Your task to perform on an android device: Show me the alarms in the clock app Image 0: 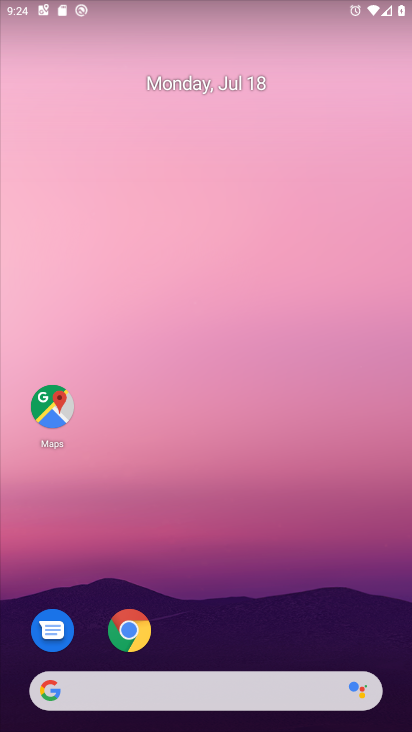
Step 0: drag from (201, 640) to (200, 268)
Your task to perform on an android device: Show me the alarms in the clock app Image 1: 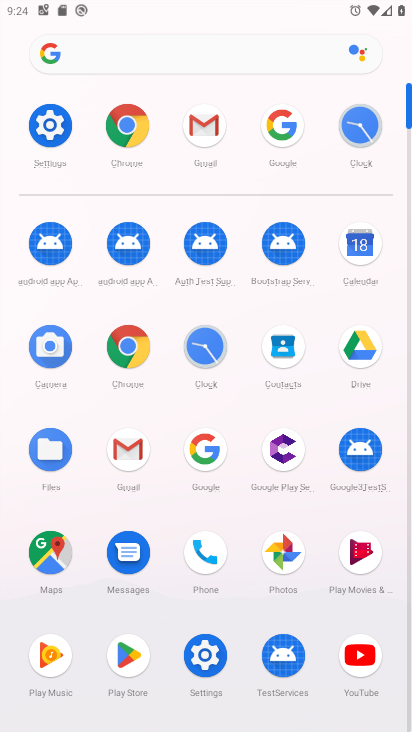
Step 1: click (371, 133)
Your task to perform on an android device: Show me the alarms in the clock app Image 2: 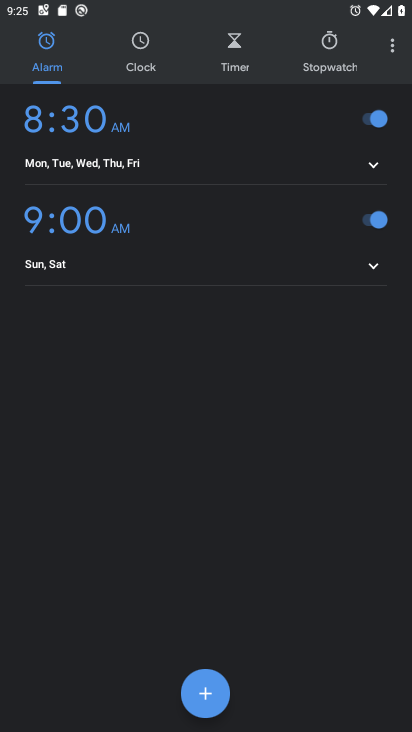
Step 2: task complete